Your task to perform on an android device: turn on translation in the chrome app Image 0: 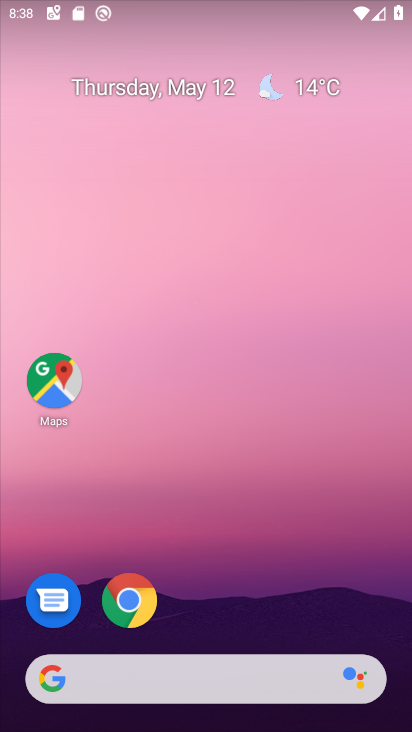
Step 0: drag from (331, 635) to (173, 195)
Your task to perform on an android device: turn on translation in the chrome app Image 1: 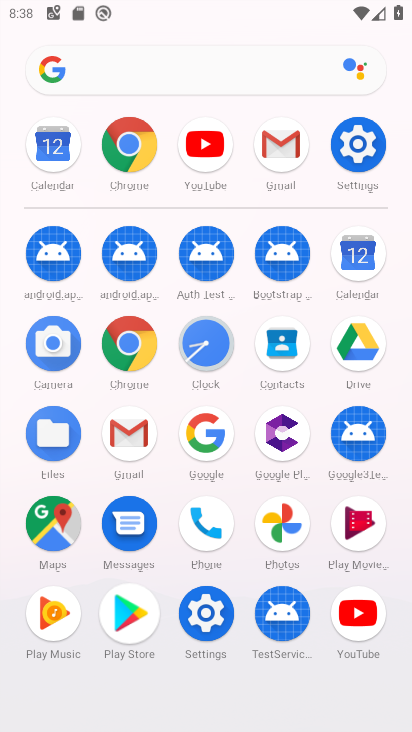
Step 1: click (126, 156)
Your task to perform on an android device: turn on translation in the chrome app Image 2: 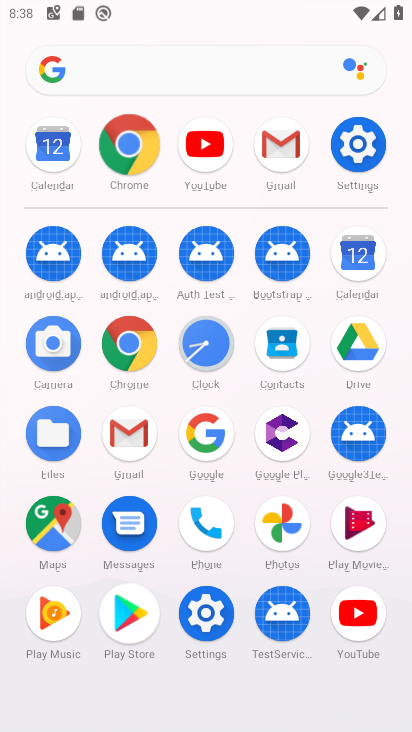
Step 2: click (126, 156)
Your task to perform on an android device: turn on translation in the chrome app Image 3: 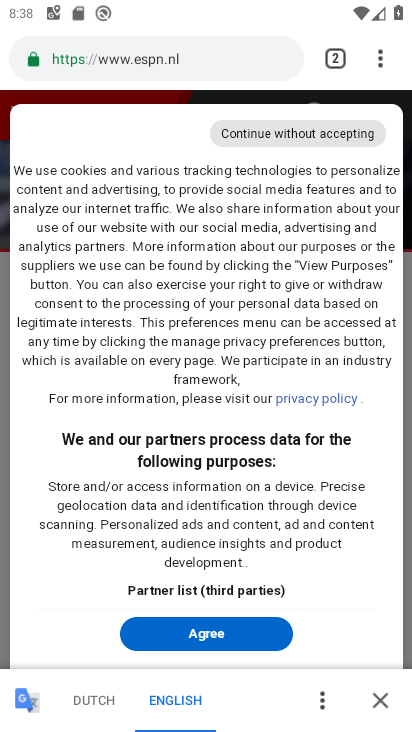
Step 3: drag from (379, 59) to (160, 640)
Your task to perform on an android device: turn on translation in the chrome app Image 4: 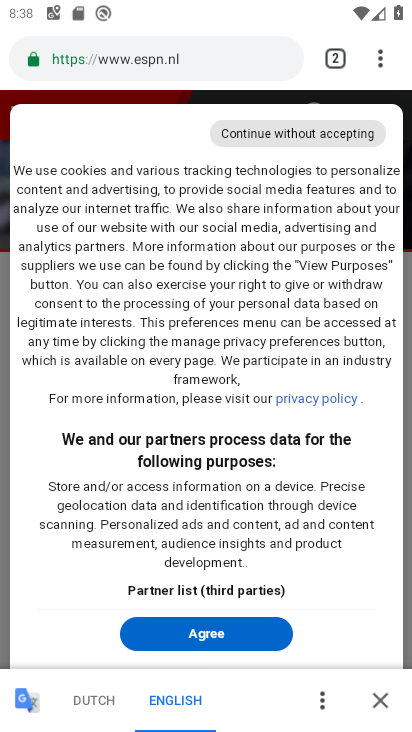
Step 4: click (161, 634)
Your task to perform on an android device: turn on translation in the chrome app Image 5: 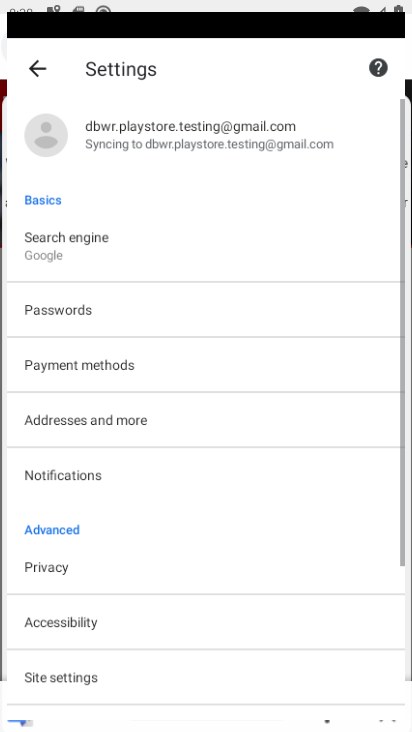
Step 5: click (161, 634)
Your task to perform on an android device: turn on translation in the chrome app Image 6: 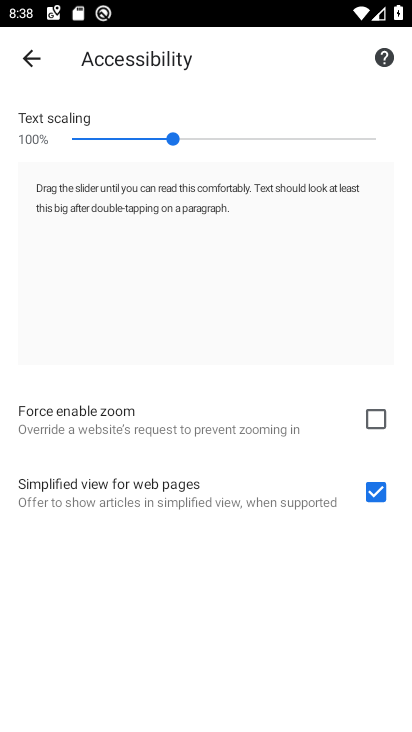
Step 6: click (32, 59)
Your task to perform on an android device: turn on translation in the chrome app Image 7: 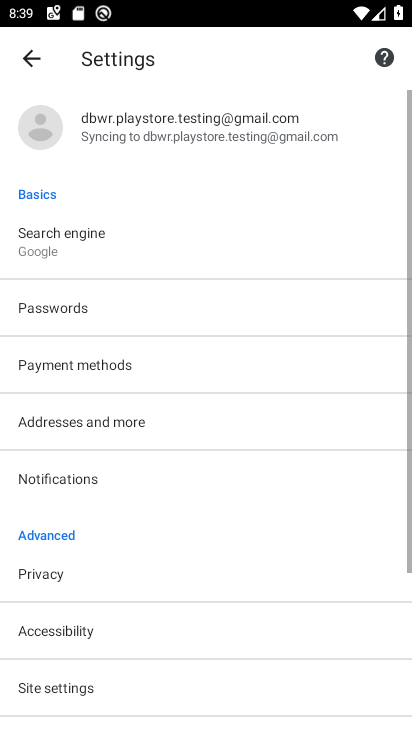
Step 7: drag from (251, 584) to (273, 135)
Your task to perform on an android device: turn on translation in the chrome app Image 8: 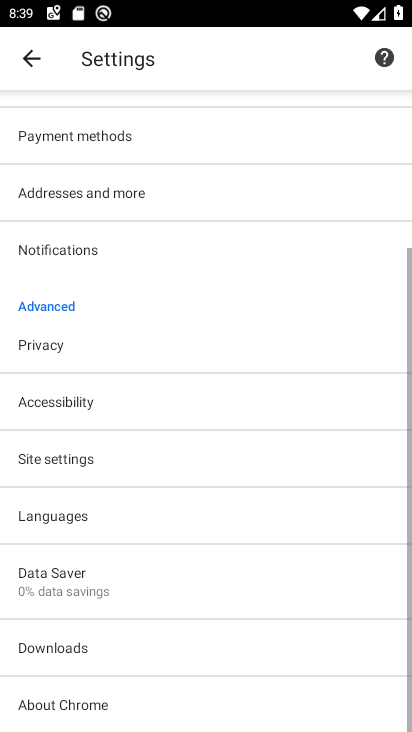
Step 8: drag from (209, 350) to (159, 167)
Your task to perform on an android device: turn on translation in the chrome app Image 9: 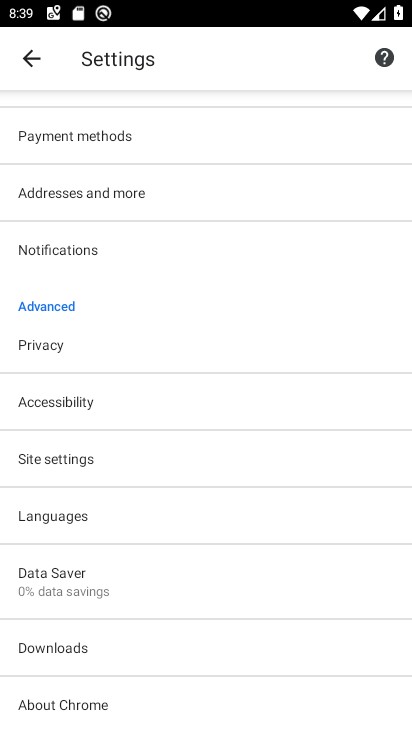
Step 9: click (44, 514)
Your task to perform on an android device: turn on translation in the chrome app Image 10: 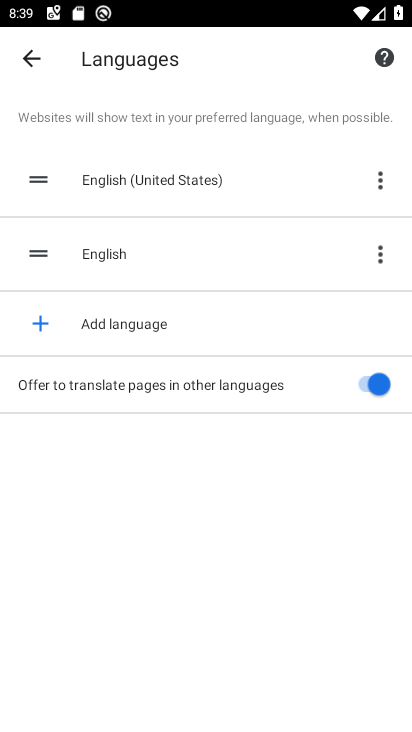
Step 10: press back button
Your task to perform on an android device: turn on translation in the chrome app Image 11: 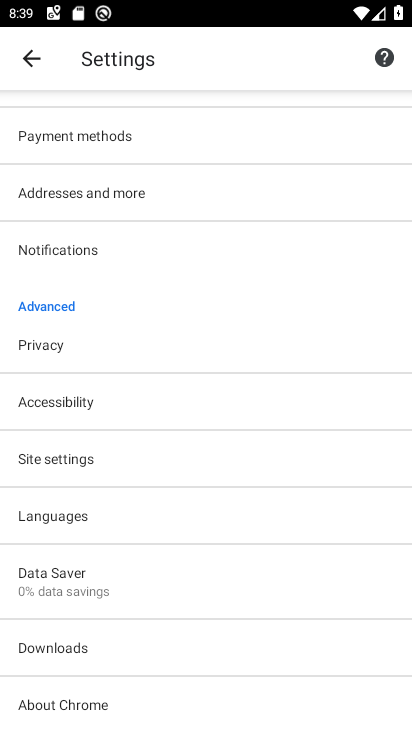
Step 11: press back button
Your task to perform on an android device: turn on translation in the chrome app Image 12: 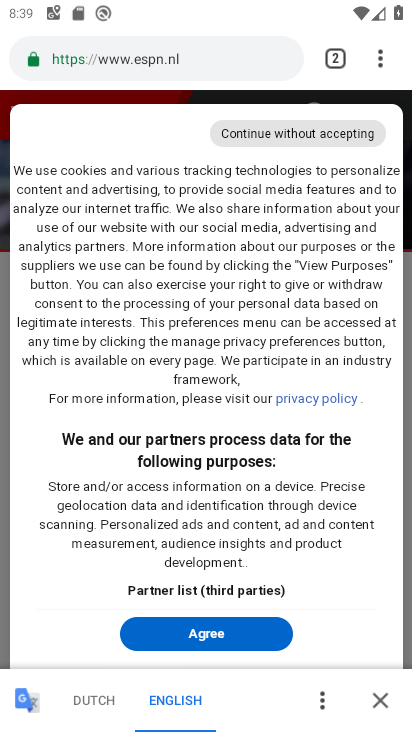
Step 12: click (26, 61)
Your task to perform on an android device: turn on translation in the chrome app Image 13: 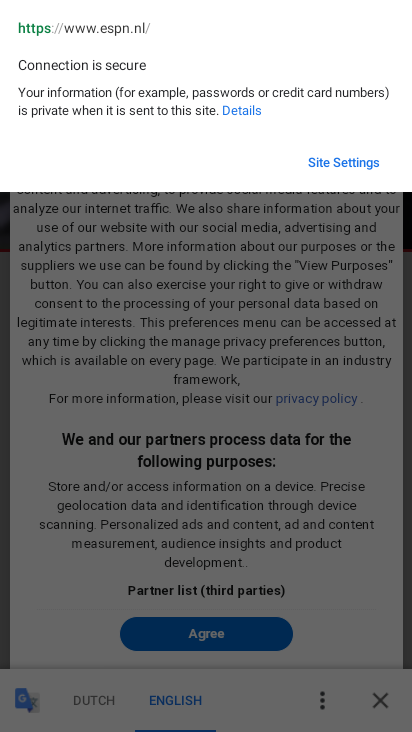
Step 13: press home button
Your task to perform on an android device: turn on translation in the chrome app Image 14: 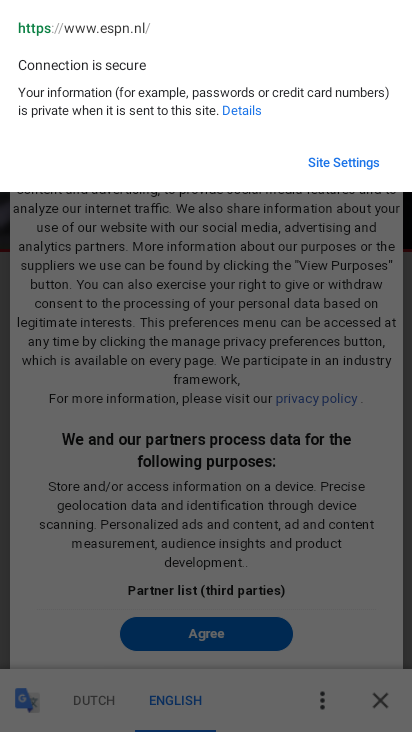
Step 14: press home button
Your task to perform on an android device: turn on translation in the chrome app Image 15: 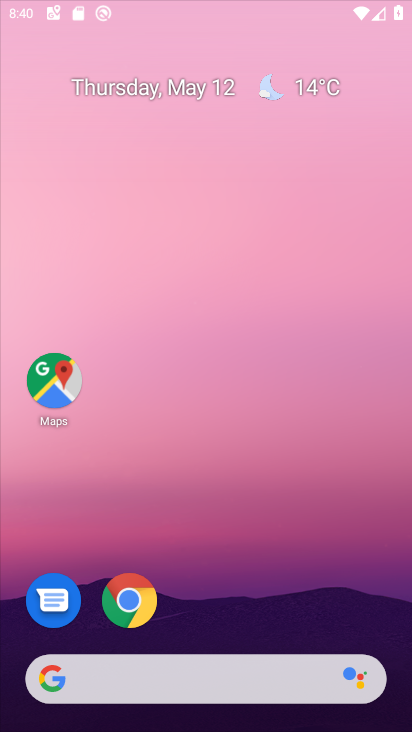
Step 15: press home button
Your task to perform on an android device: turn on translation in the chrome app Image 16: 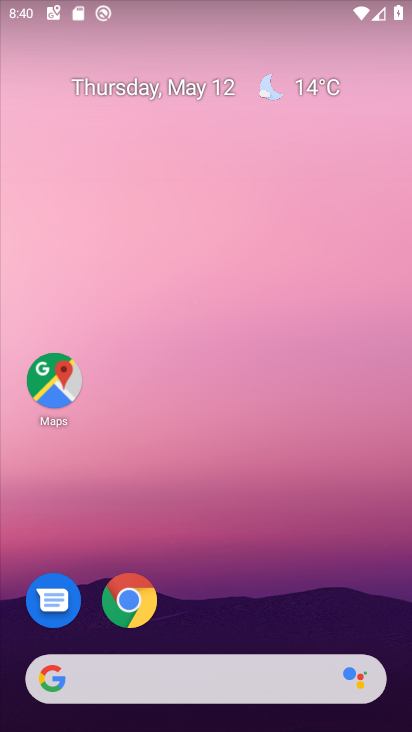
Step 16: press home button
Your task to perform on an android device: turn on translation in the chrome app Image 17: 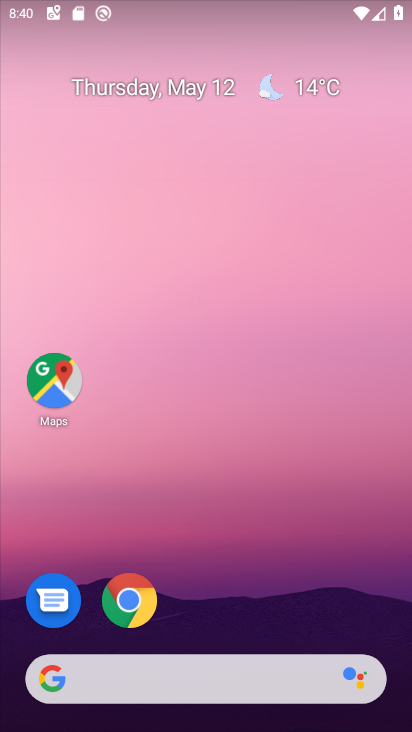
Step 17: press home button
Your task to perform on an android device: turn on translation in the chrome app Image 18: 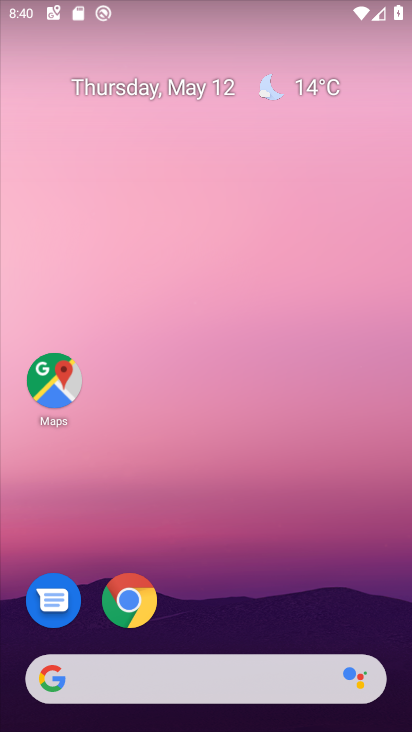
Step 18: drag from (291, 611) to (399, 543)
Your task to perform on an android device: turn on translation in the chrome app Image 19: 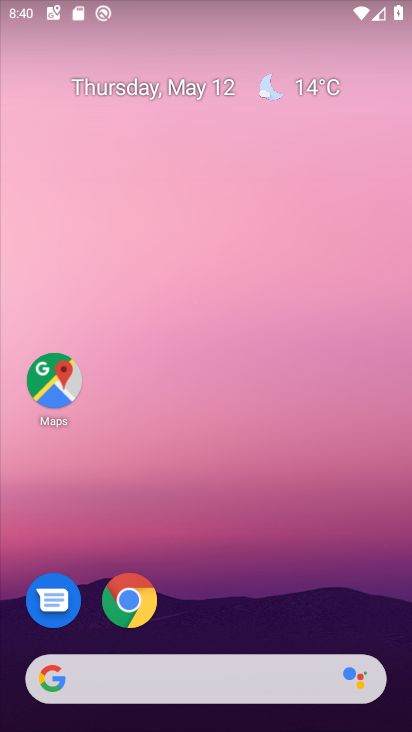
Step 19: drag from (312, 606) to (257, 2)
Your task to perform on an android device: turn on translation in the chrome app Image 20: 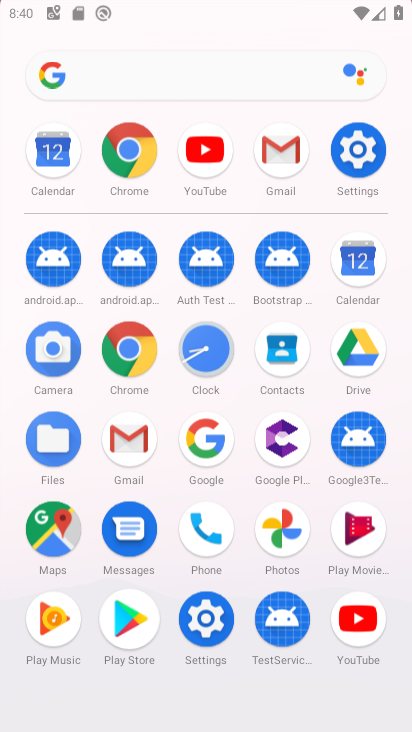
Step 20: click (347, 204)
Your task to perform on an android device: turn on translation in the chrome app Image 21: 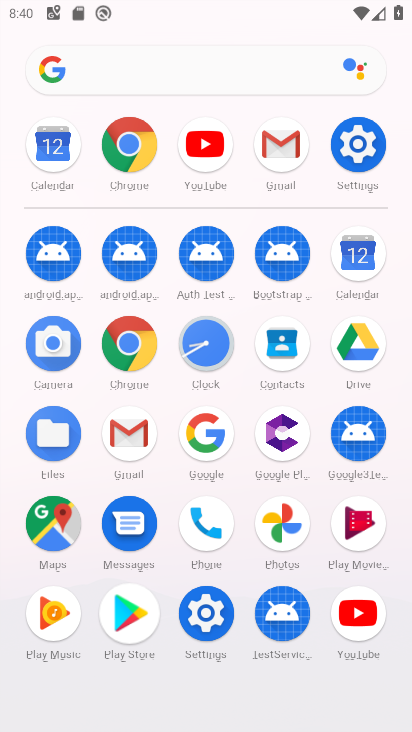
Step 21: click (347, 204)
Your task to perform on an android device: turn on translation in the chrome app Image 22: 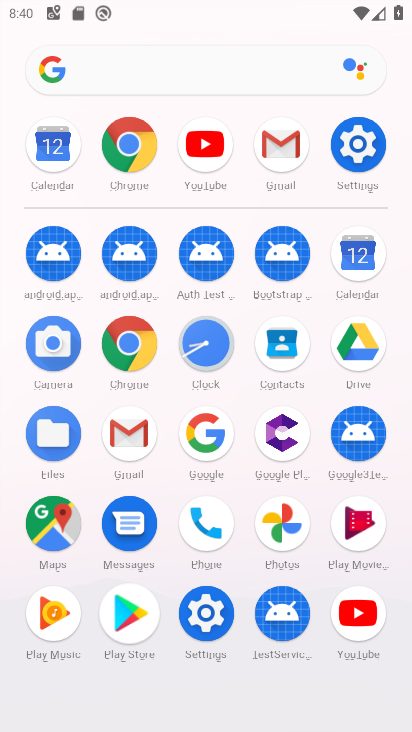
Step 22: click (359, 152)
Your task to perform on an android device: turn on translation in the chrome app Image 23: 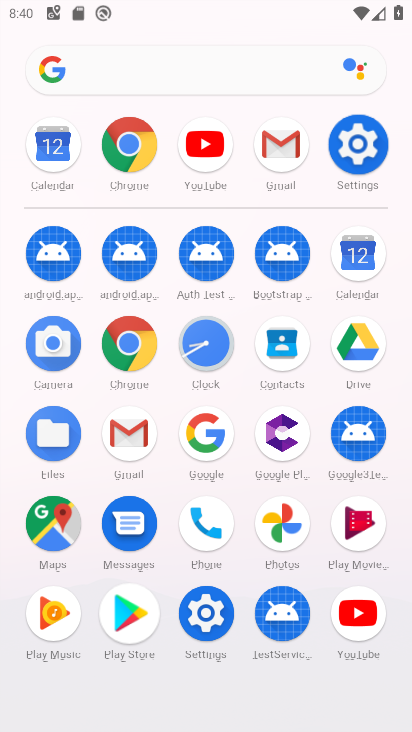
Step 23: click (359, 152)
Your task to perform on an android device: turn on translation in the chrome app Image 24: 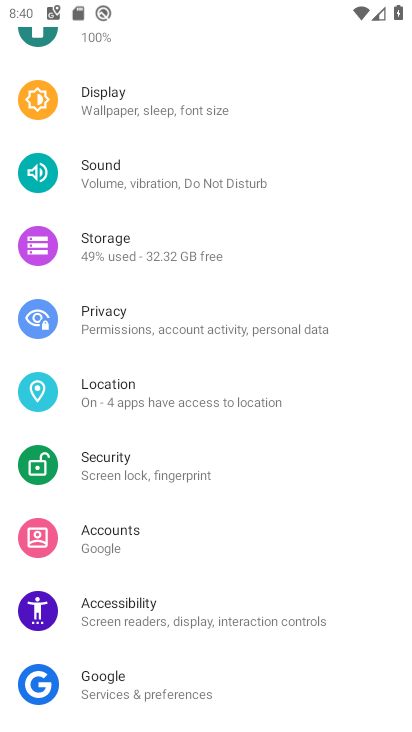
Step 24: press back button
Your task to perform on an android device: turn on translation in the chrome app Image 25: 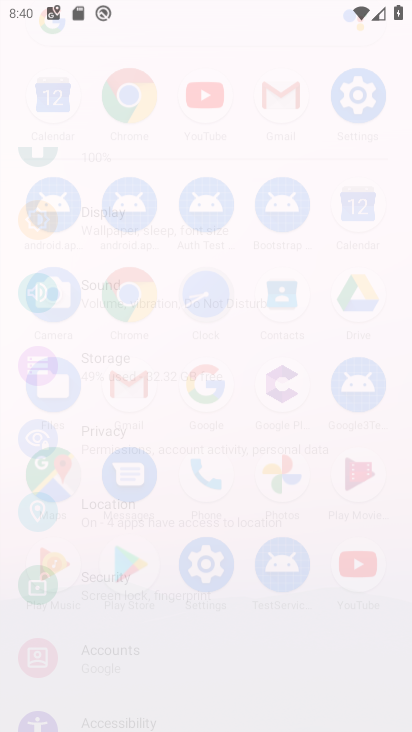
Step 25: press back button
Your task to perform on an android device: turn on translation in the chrome app Image 26: 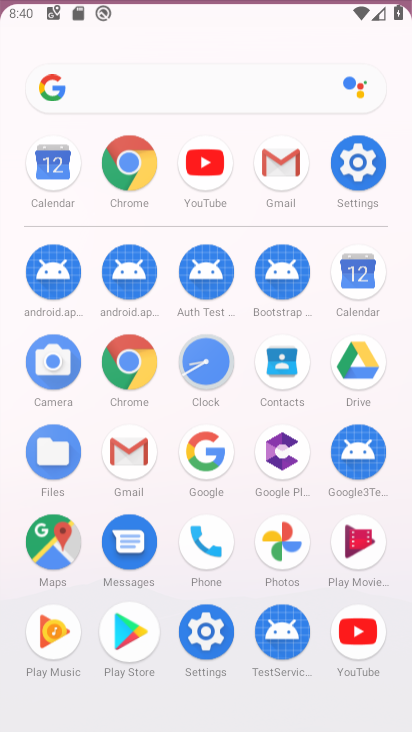
Step 26: press back button
Your task to perform on an android device: turn on translation in the chrome app Image 27: 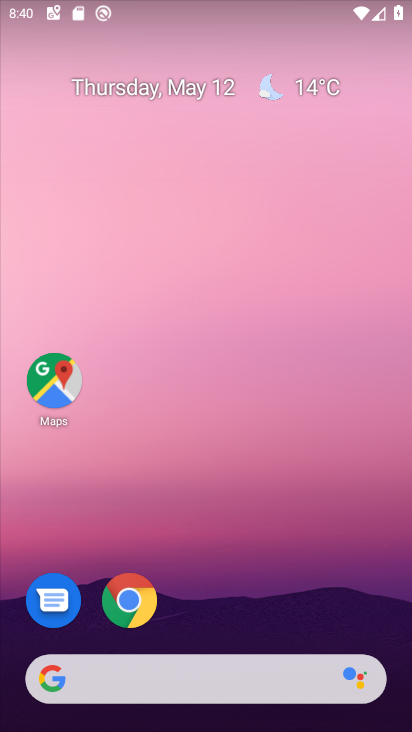
Step 27: drag from (255, 440) to (167, 0)
Your task to perform on an android device: turn on translation in the chrome app Image 28: 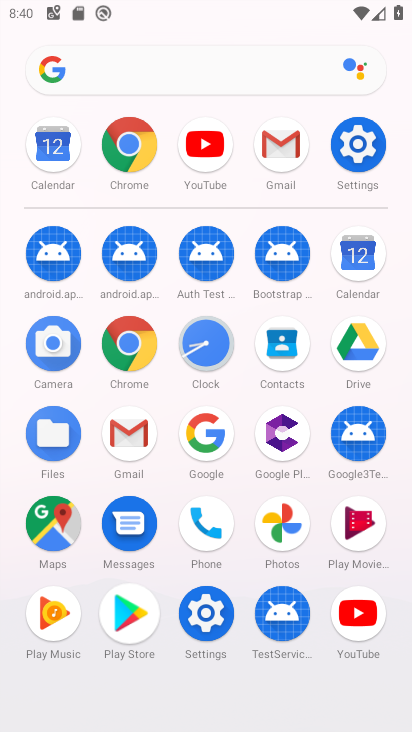
Step 28: click (128, 133)
Your task to perform on an android device: turn on translation in the chrome app Image 29: 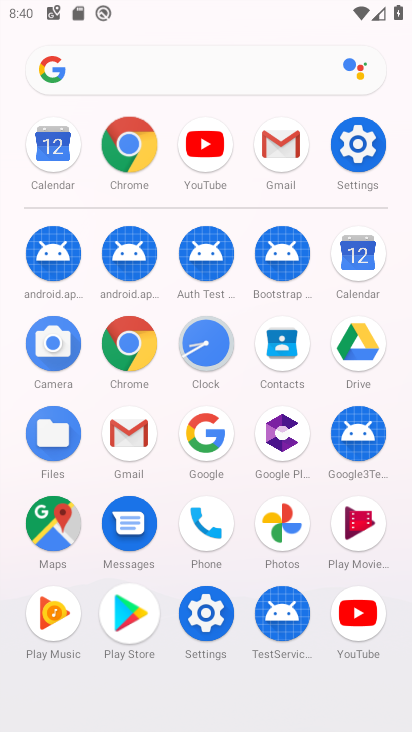
Step 29: click (128, 133)
Your task to perform on an android device: turn on translation in the chrome app Image 30: 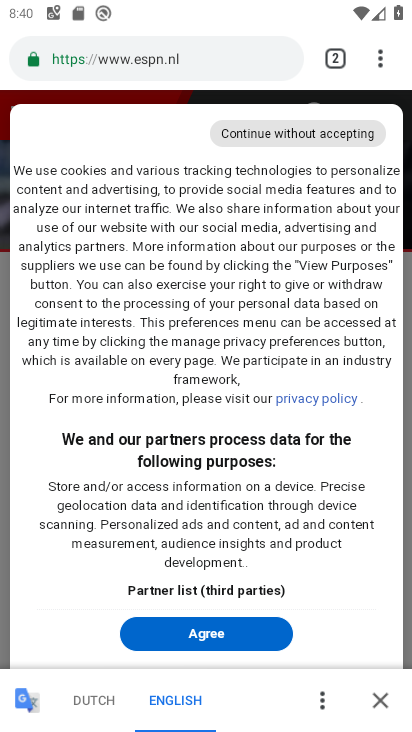
Step 30: drag from (377, 59) to (159, 624)
Your task to perform on an android device: turn on translation in the chrome app Image 31: 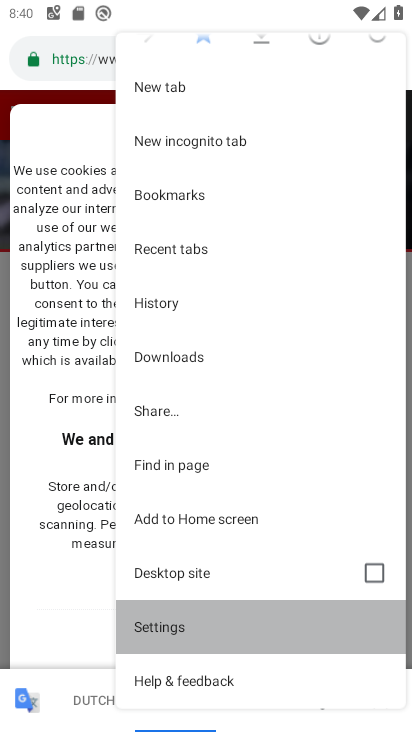
Step 31: click (159, 624)
Your task to perform on an android device: turn on translation in the chrome app Image 32: 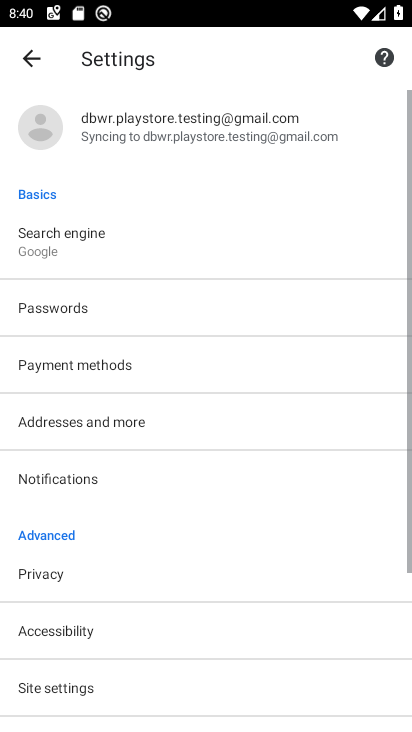
Step 32: drag from (200, 518) to (162, 68)
Your task to perform on an android device: turn on translation in the chrome app Image 33: 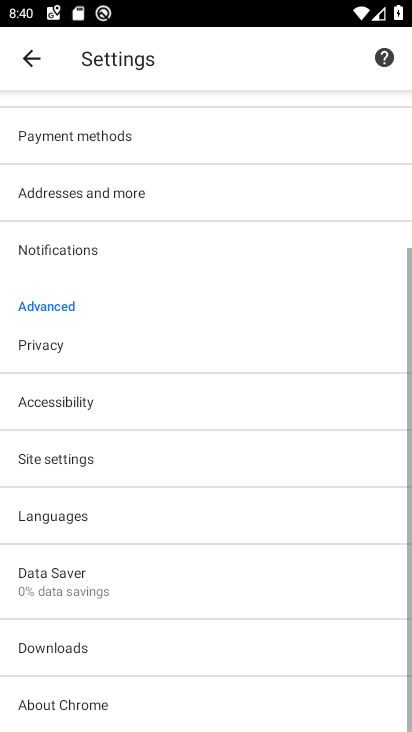
Step 33: drag from (180, 402) to (136, 86)
Your task to perform on an android device: turn on translation in the chrome app Image 34: 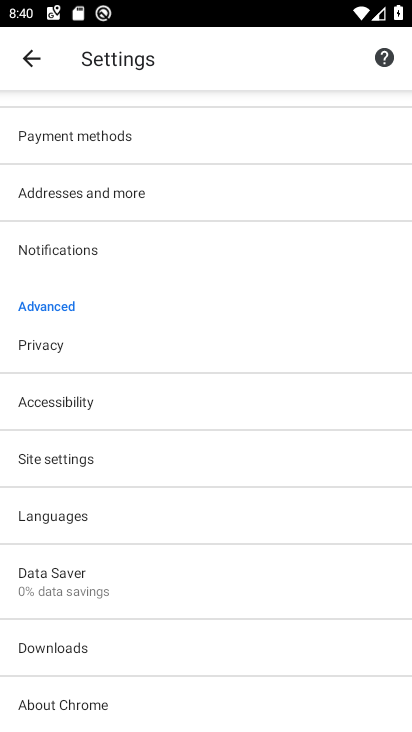
Step 34: click (53, 520)
Your task to perform on an android device: turn on translation in the chrome app Image 35: 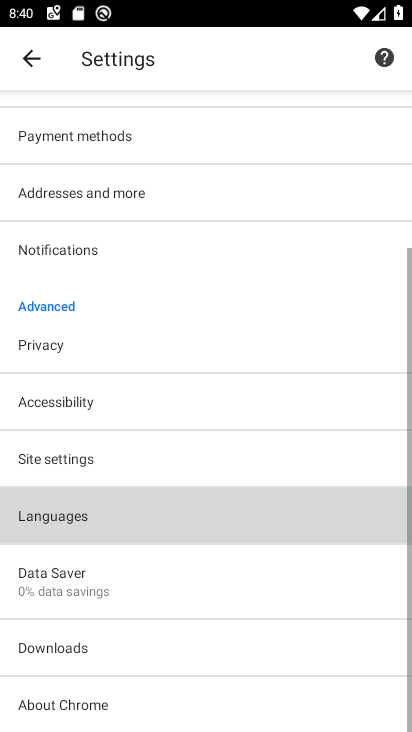
Step 35: click (53, 515)
Your task to perform on an android device: turn on translation in the chrome app Image 36: 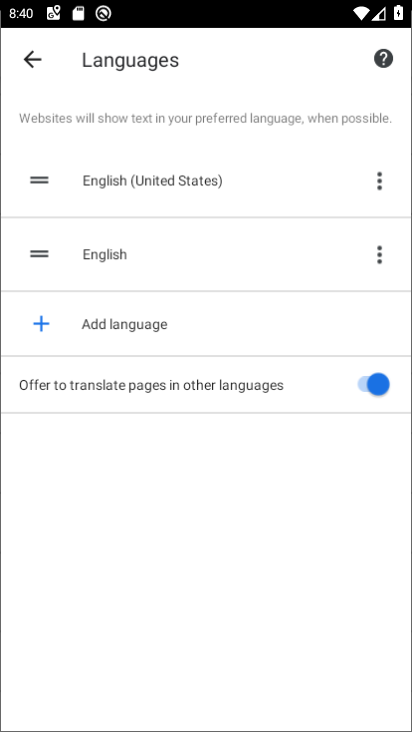
Step 36: click (53, 515)
Your task to perform on an android device: turn on translation in the chrome app Image 37: 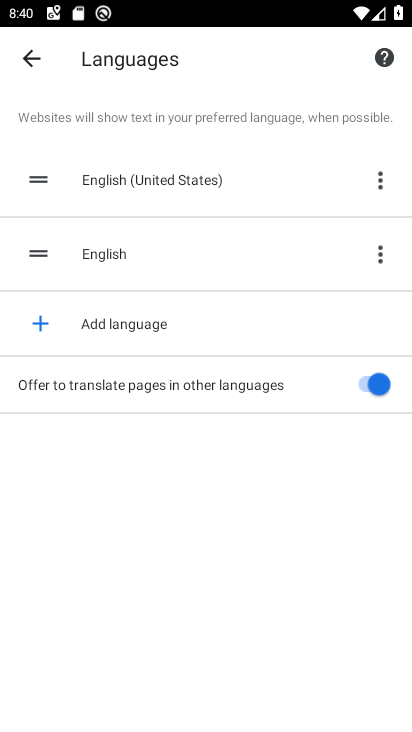
Step 37: task complete